Your task to perform on an android device: Play the last video I watched on Youtube Image 0: 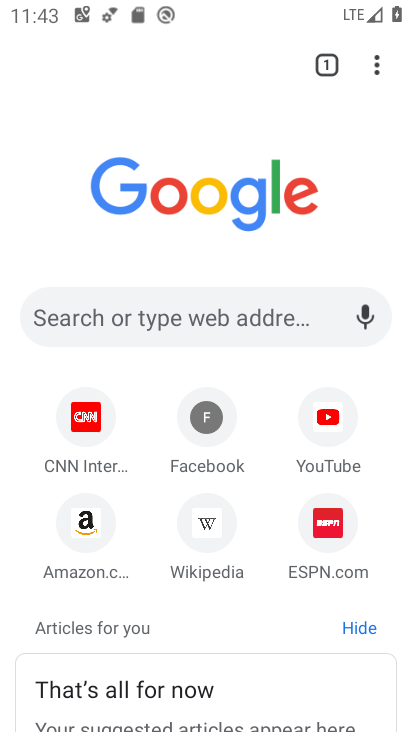
Step 0: press home button
Your task to perform on an android device: Play the last video I watched on Youtube Image 1: 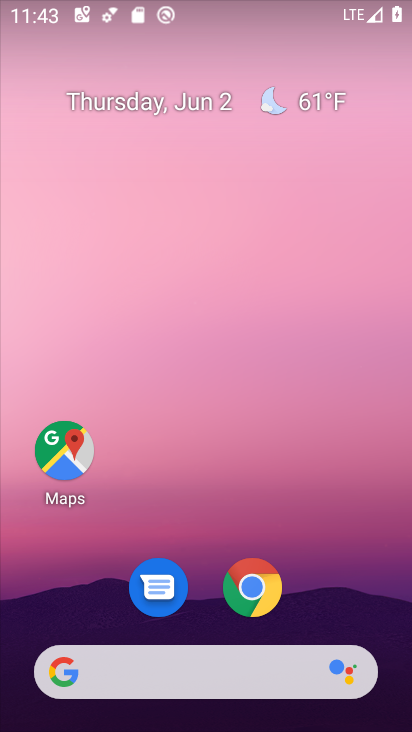
Step 1: drag from (214, 527) to (298, 0)
Your task to perform on an android device: Play the last video I watched on Youtube Image 2: 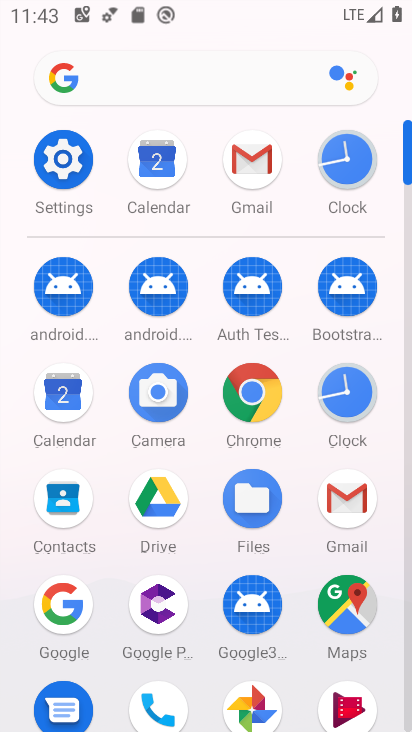
Step 2: drag from (206, 577) to (257, 98)
Your task to perform on an android device: Play the last video I watched on Youtube Image 3: 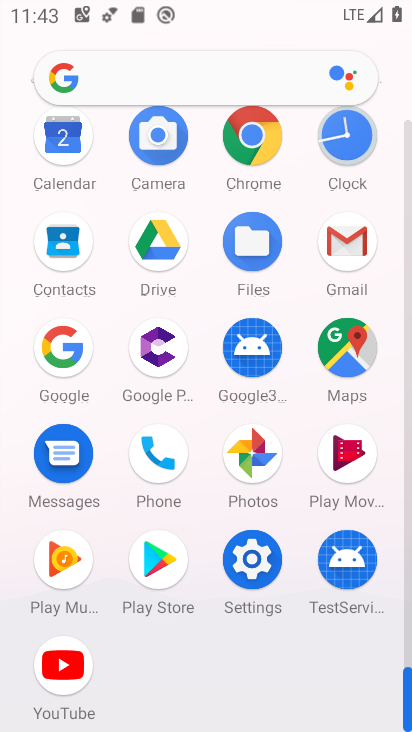
Step 3: click (55, 647)
Your task to perform on an android device: Play the last video I watched on Youtube Image 4: 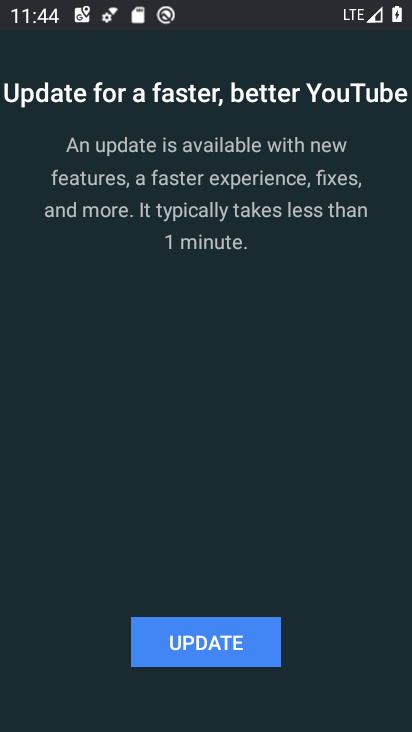
Step 4: click (234, 659)
Your task to perform on an android device: Play the last video I watched on Youtube Image 5: 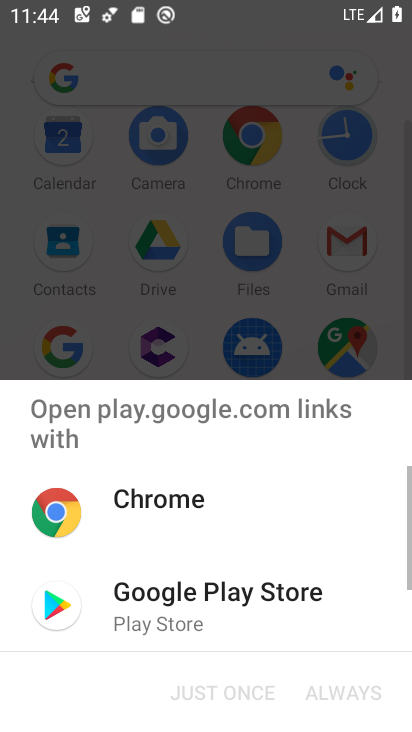
Step 5: click (174, 609)
Your task to perform on an android device: Play the last video I watched on Youtube Image 6: 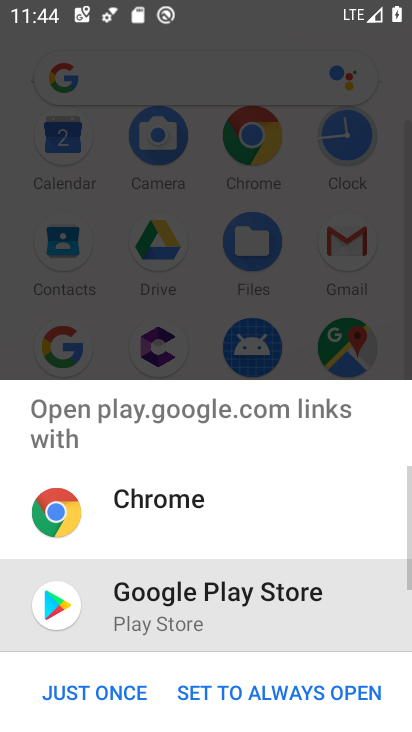
Step 6: click (122, 691)
Your task to perform on an android device: Play the last video I watched on Youtube Image 7: 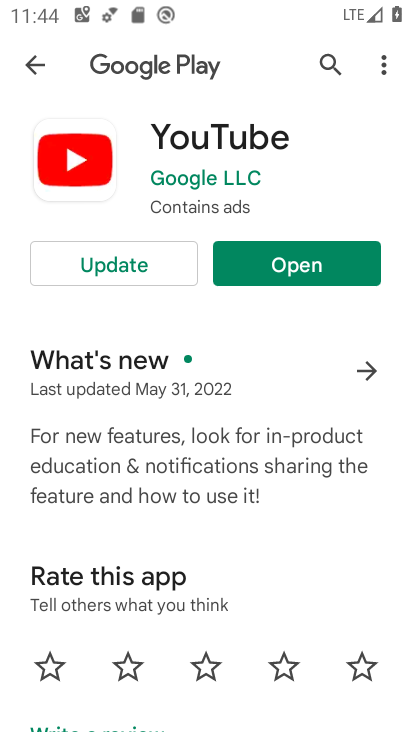
Step 7: click (137, 270)
Your task to perform on an android device: Play the last video I watched on Youtube Image 8: 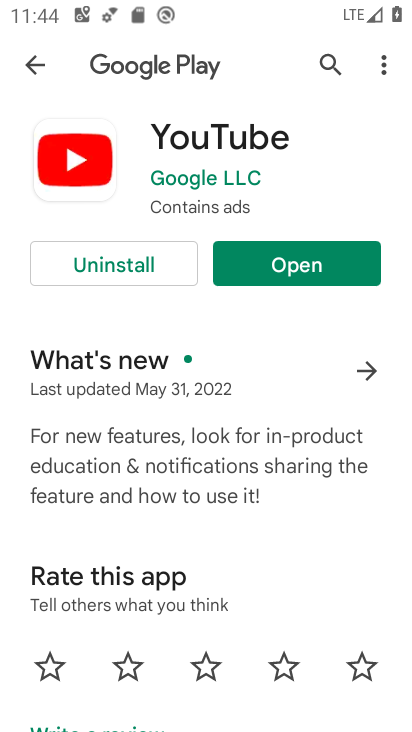
Step 8: click (368, 256)
Your task to perform on an android device: Play the last video I watched on Youtube Image 9: 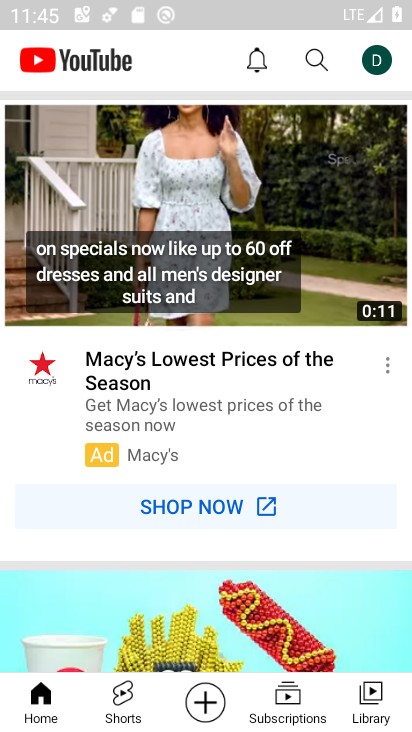
Step 9: click (362, 685)
Your task to perform on an android device: Play the last video I watched on Youtube Image 10: 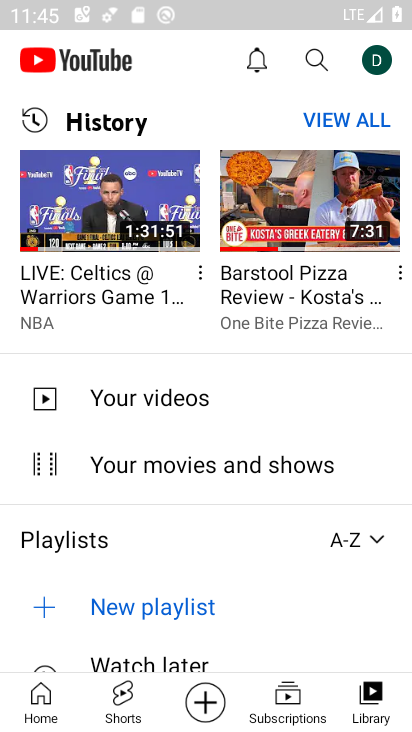
Step 10: click (96, 189)
Your task to perform on an android device: Play the last video I watched on Youtube Image 11: 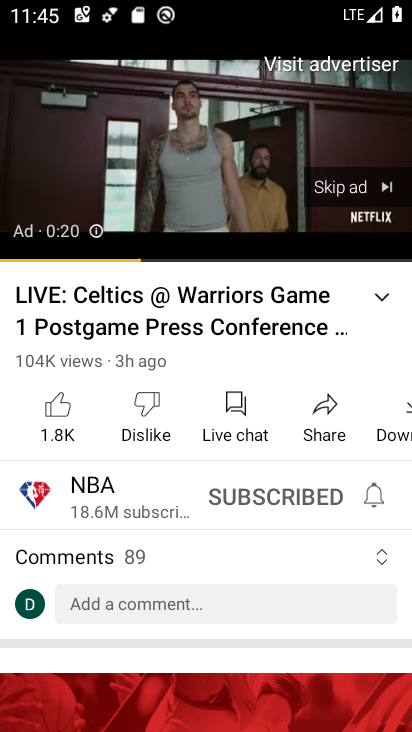
Step 11: task complete